Your task to perform on an android device: Go to Yahoo.com Image 0: 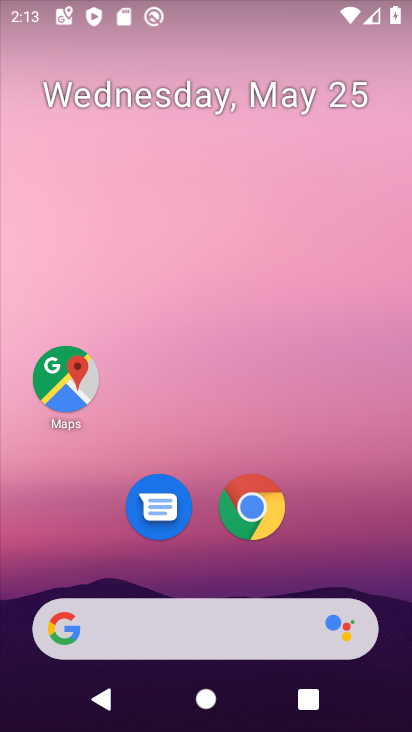
Step 0: click (252, 513)
Your task to perform on an android device: Go to Yahoo.com Image 1: 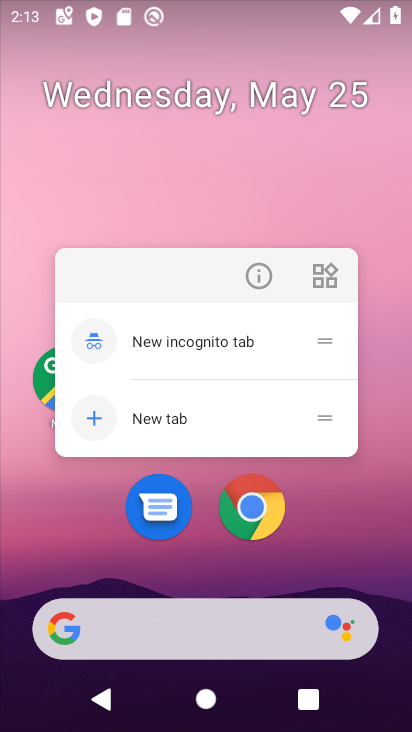
Step 1: click (253, 511)
Your task to perform on an android device: Go to Yahoo.com Image 2: 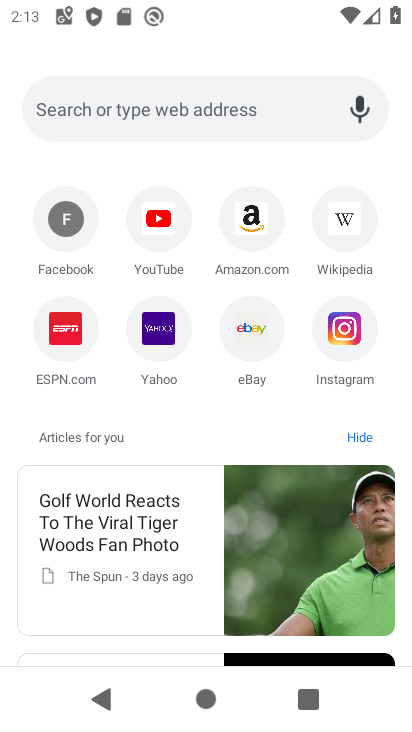
Step 2: click (207, 119)
Your task to perform on an android device: Go to Yahoo.com Image 3: 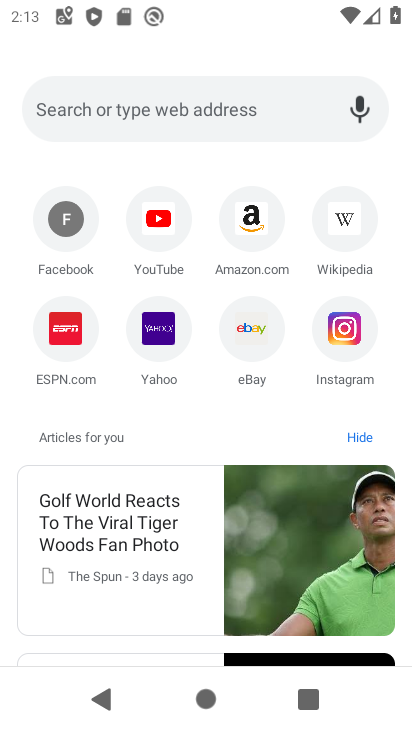
Step 3: click (206, 106)
Your task to perform on an android device: Go to Yahoo.com Image 4: 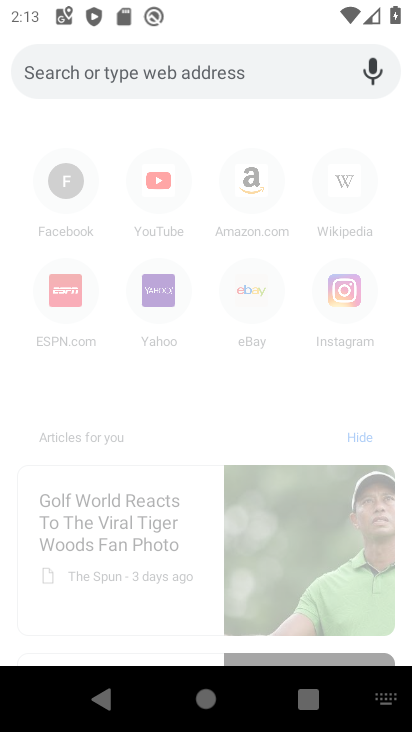
Step 4: type "yahoo"
Your task to perform on an android device: Go to Yahoo.com Image 5: 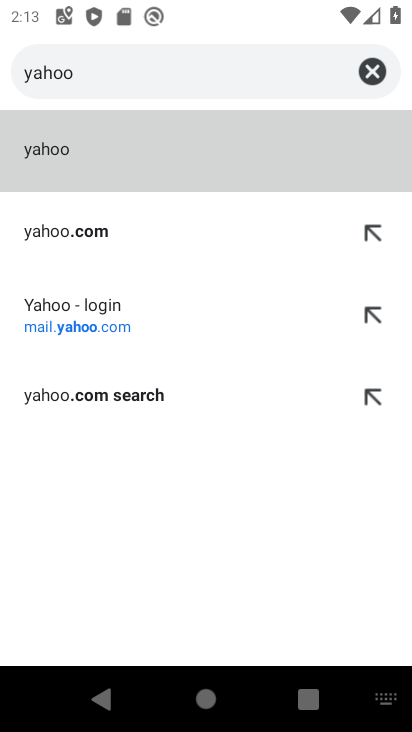
Step 5: click (172, 234)
Your task to perform on an android device: Go to Yahoo.com Image 6: 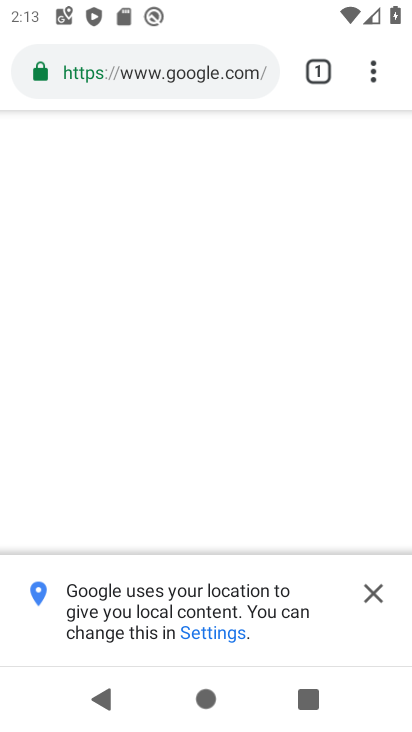
Step 6: click (369, 588)
Your task to perform on an android device: Go to Yahoo.com Image 7: 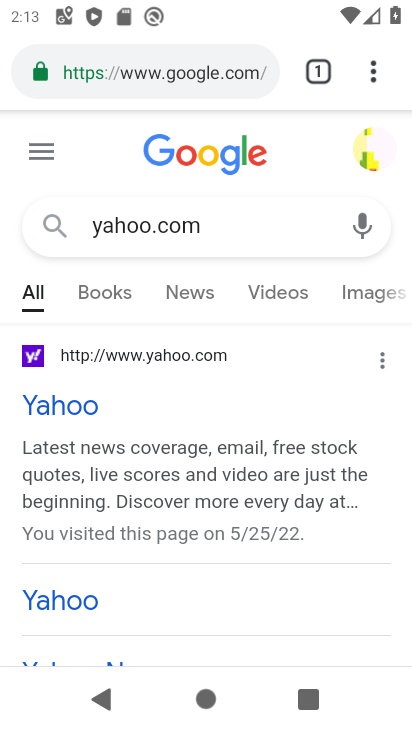
Step 7: click (83, 402)
Your task to perform on an android device: Go to Yahoo.com Image 8: 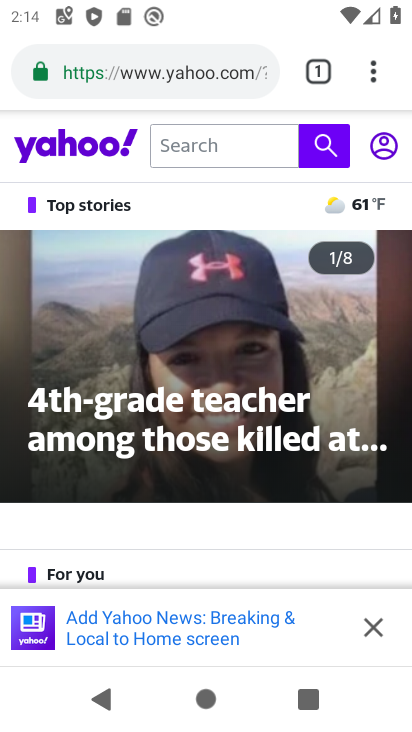
Step 8: click (381, 618)
Your task to perform on an android device: Go to Yahoo.com Image 9: 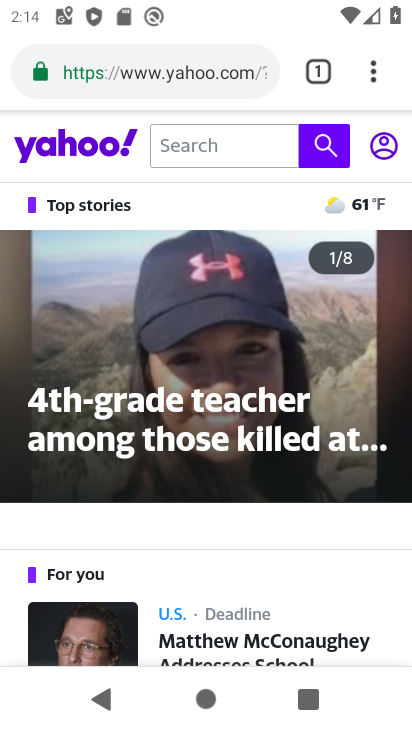
Step 9: task complete